Your task to perform on an android device: stop showing notifications on the lock screen Image 0: 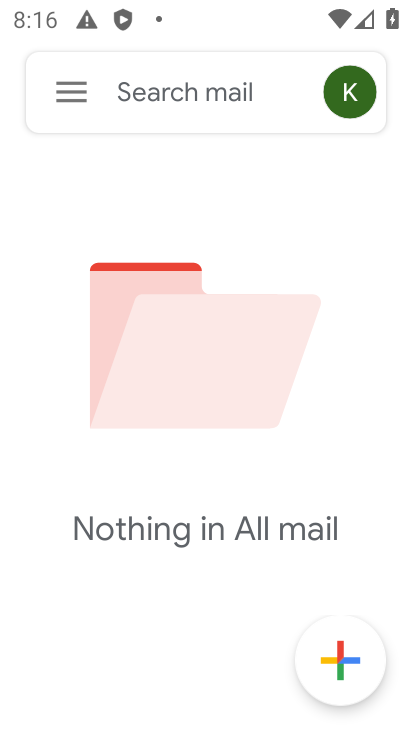
Step 0: press home button
Your task to perform on an android device: stop showing notifications on the lock screen Image 1: 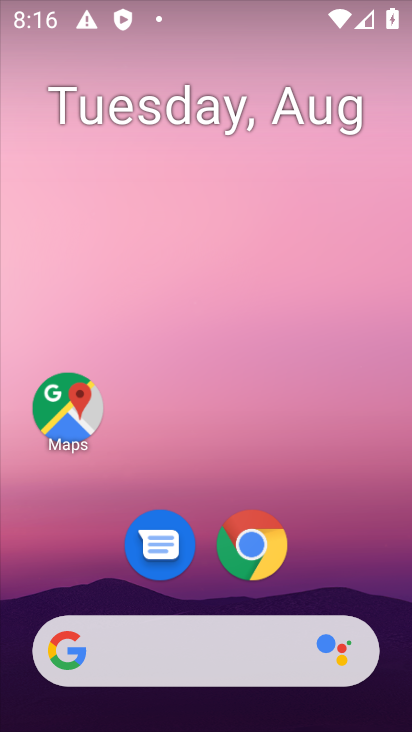
Step 1: drag from (16, 597) to (173, 125)
Your task to perform on an android device: stop showing notifications on the lock screen Image 2: 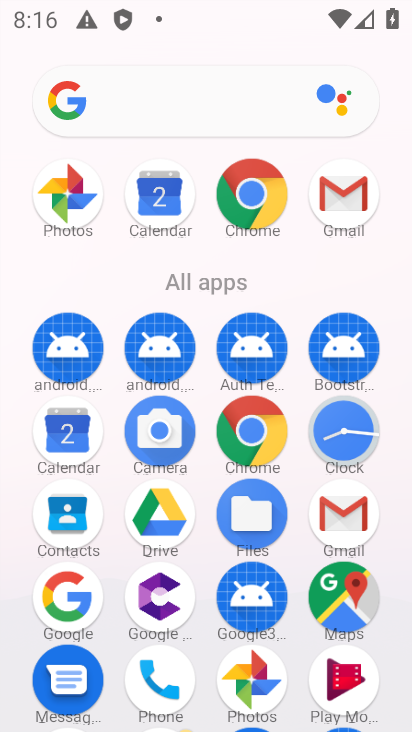
Step 2: drag from (18, 518) to (186, 161)
Your task to perform on an android device: stop showing notifications on the lock screen Image 3: 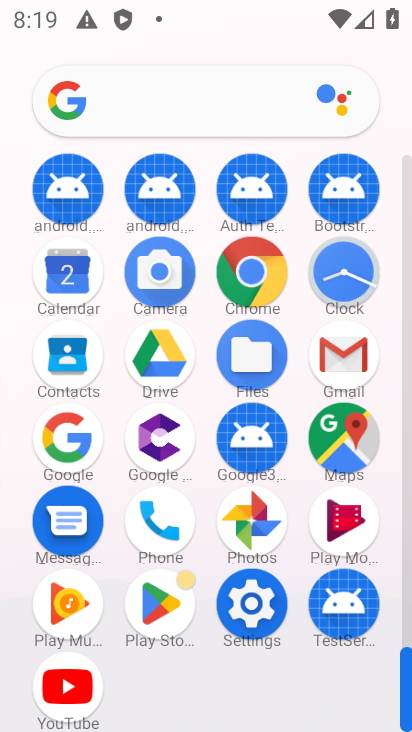
Step 3: click (246, 594)
Your task to perform on an android device: stop showing notifications on the lock screen Image 4: 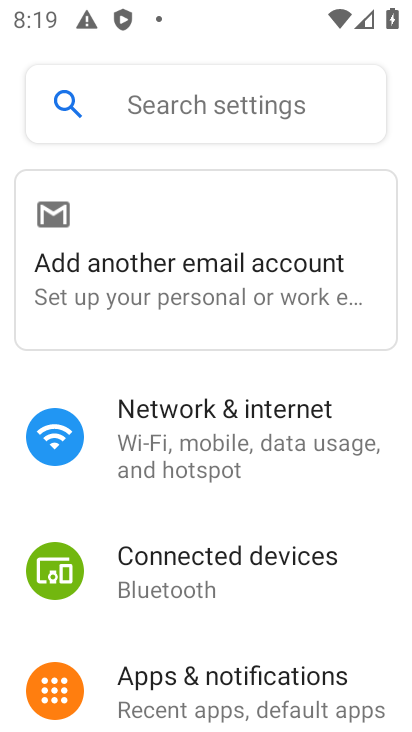
Step 4: click (234, 695)
Your task to perform on an android device: stop showing notifications on the lock screen Image 5: 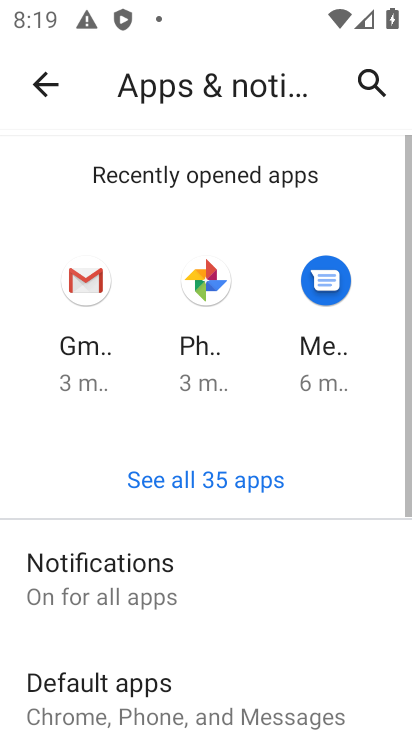
Step 5: click (97, 594)
Your task to perform on an android device: stop showing notifications on the lock screen Image 6: 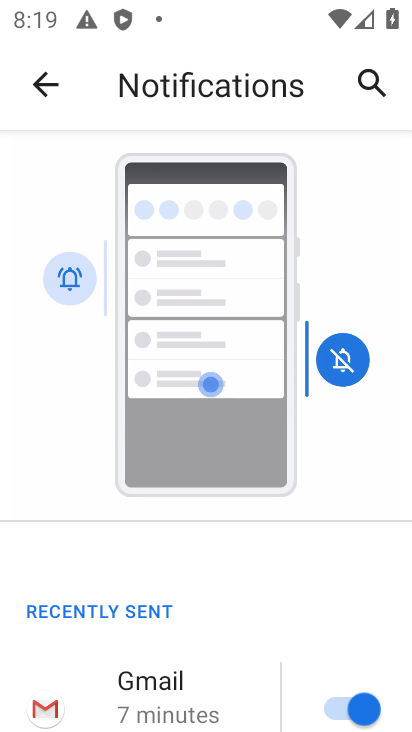
Step 6: drag from (9, 617) to (112, 183)
Your task to perform on an android device: stop showing notifications on the lock screen Image 7: 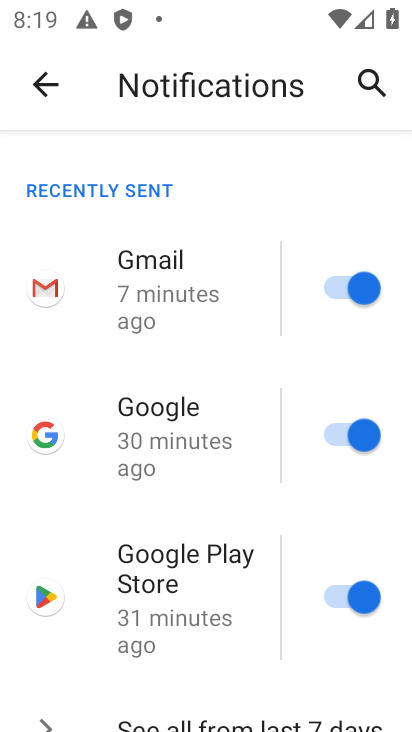
Step 7: drag from (82, 642) to (183, 289)
Your task to perform on an android device: stop showing notifications on the lock screen Image 8: 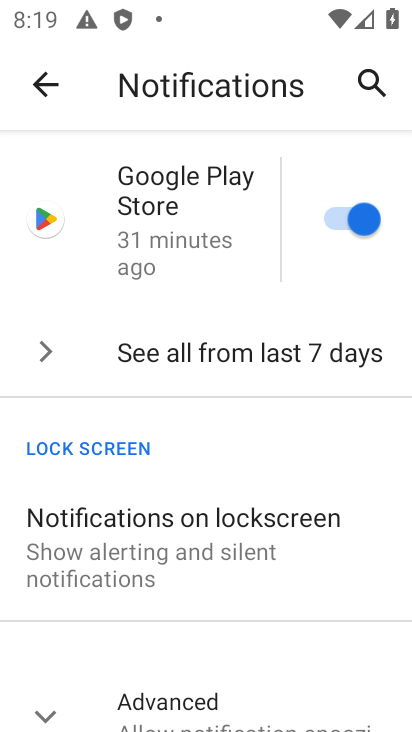
Step 8: click (145, 575)
Your task to perform on an android device: stop showing notifications on the lock screen Image 9: 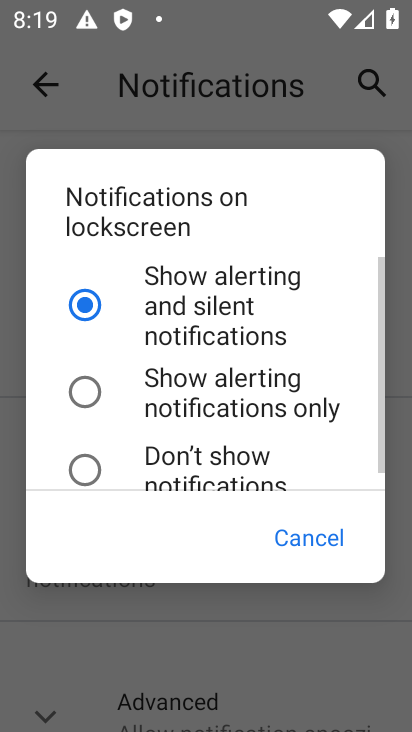
Step 9: click (139, 470)
Your task to perform on an android device: stop showing notifications on the lock screen Image 10: 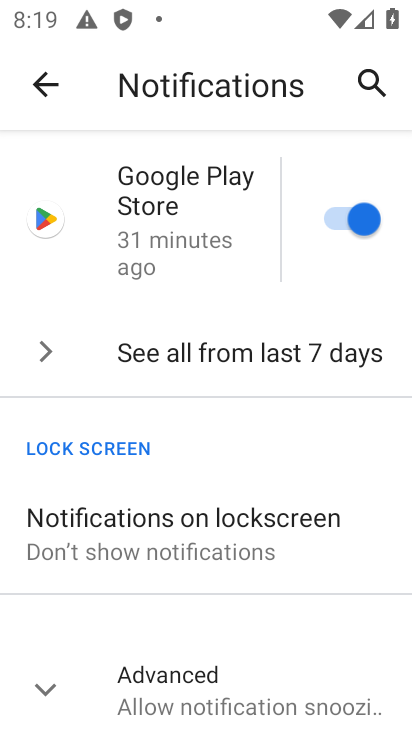
Step 10: task complete